Your task to perform on an android device: Open Youtube and go to "Your channel" Image 0: 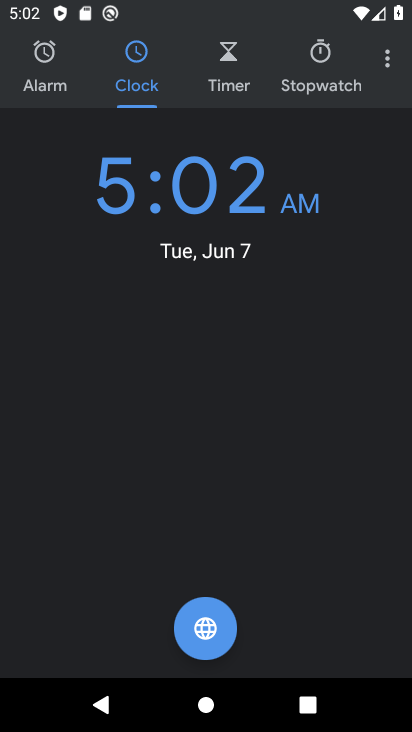
Step 0: press home button
Your task to perform on an android device: Open Youtube and go to "Your channel" Image 1: 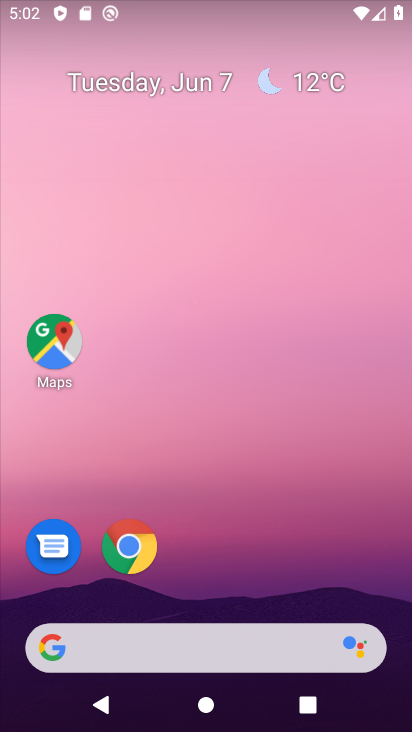
Step 1: drag from (310, 556) to (346, 37)
Your task to perform on an android device: Open Youtube and go to "Your channel" Image 2: 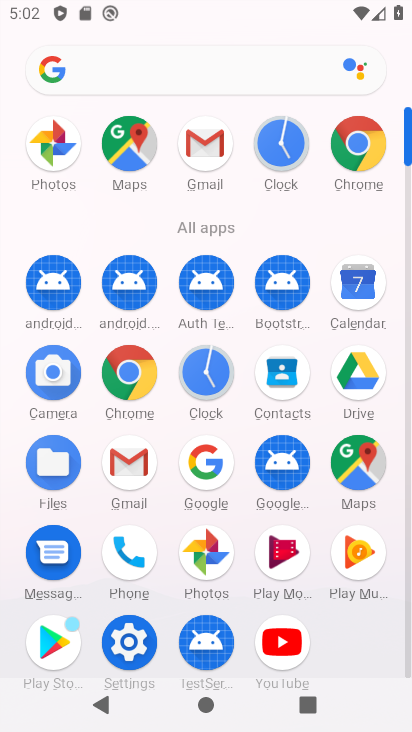
Step 2: click (271, 636)
Your task to perform on an android device: Open Youtube and go to "Your channel" Image 3: 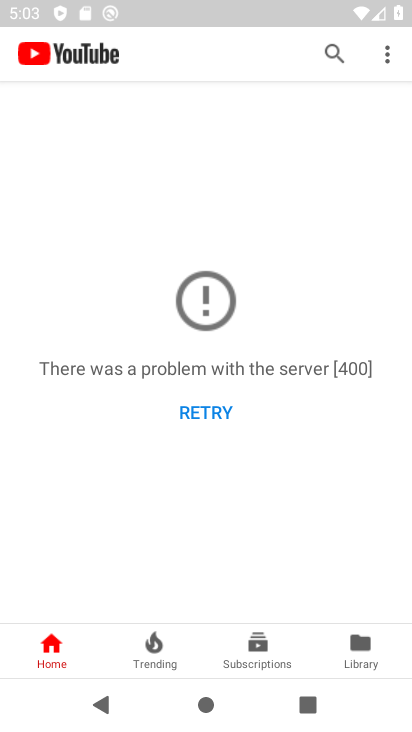
Step 3: task complete